Your task to perform on an android device: Play the last video I watched on Youtube Image 0: 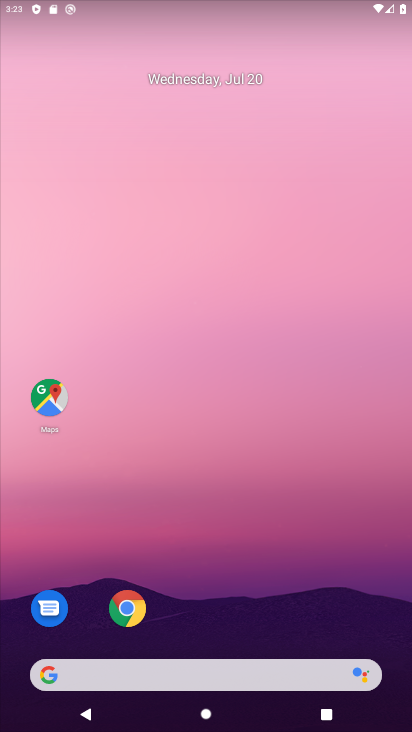
Step 0: drag from (214, 615) to (202, 185)
Your task to perform on an android device: Play the last video I watched on Youtube Image 1: 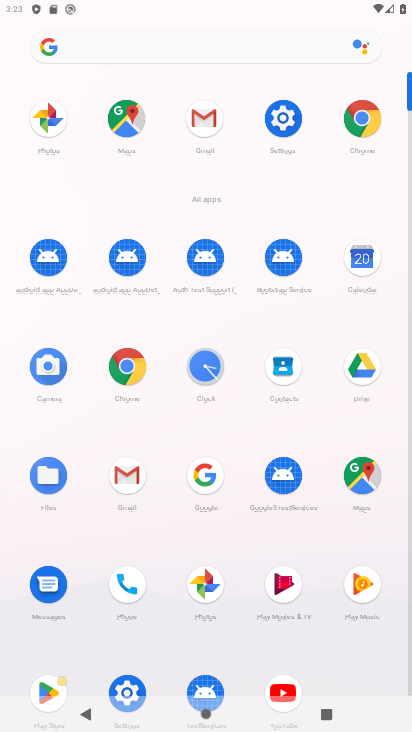
Step 1: click (281, 672)
Your task to perform on an android device: Play the last video I watched on Youtube Image 2: 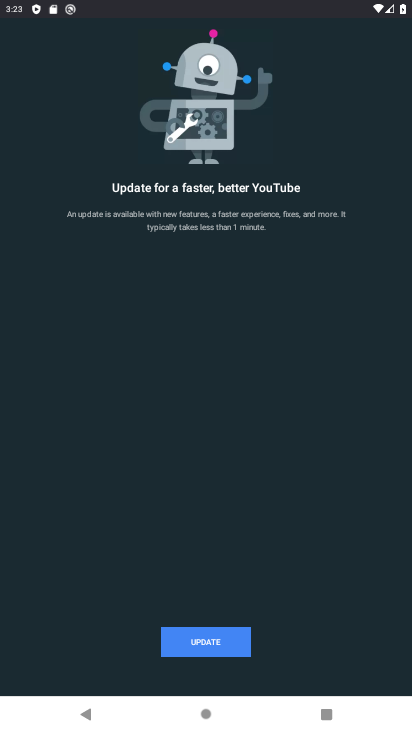
Step 2: click (218, 653)
Your task to perform on an android device: Play the last video I watched on Youtube Image 3: 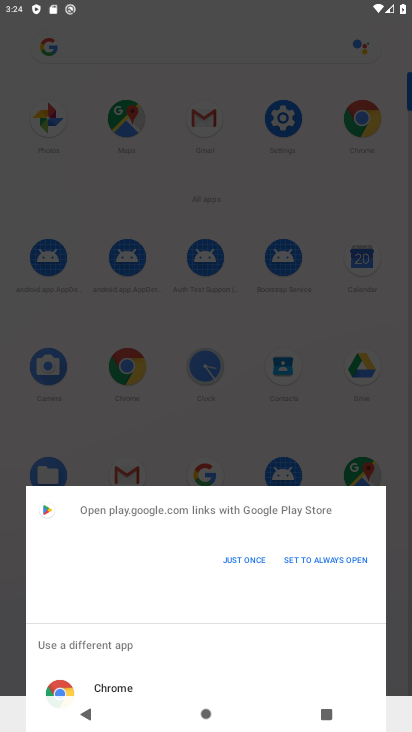
Step 3: click (244, 564)
Your task to perform on an android device: Play the last video I watched on Youtube Image 4: 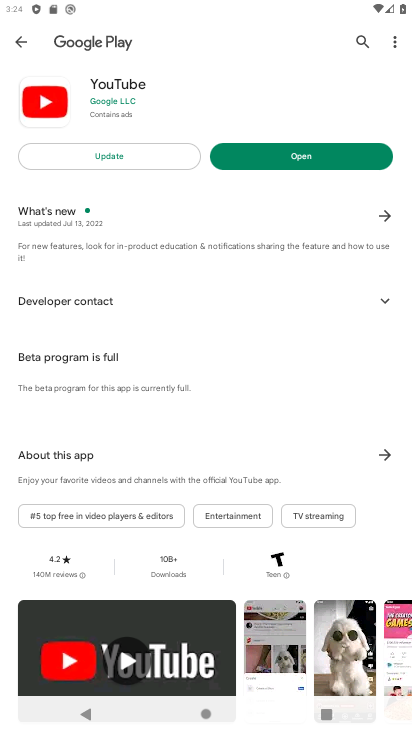
Step 4: click (162, 150)
Your task to perform on an android device: Play the last video I watched on Youtube Image 5: 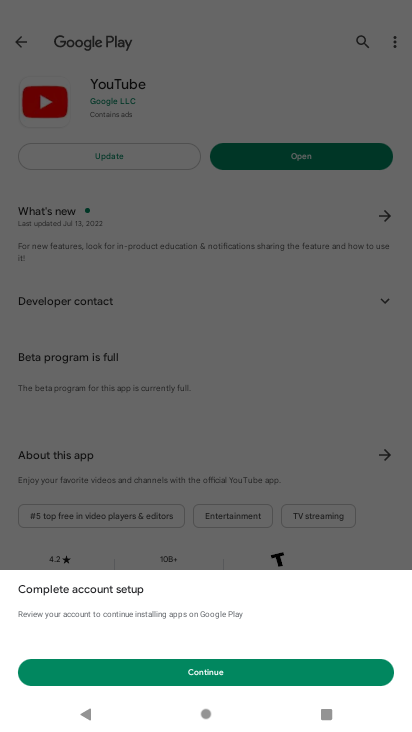
Step 5: click (197, 668)
Your task to perform on an android device: Play the last video I watched on Youtube Image 6: 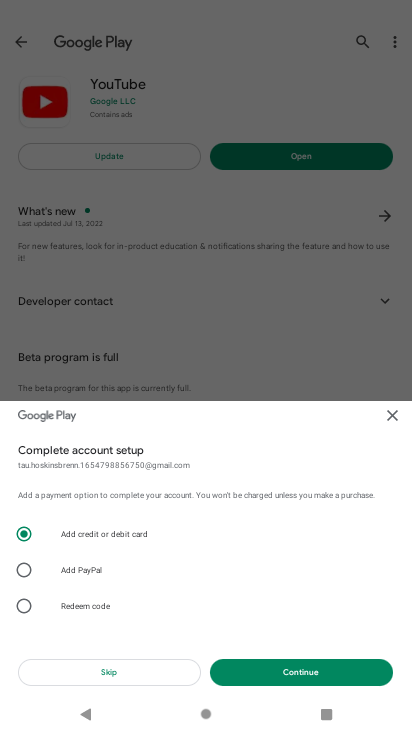
Step 6: click (95, 673)
Your task to perform on an android device: Play the last video I watched on Youtube Image 7: 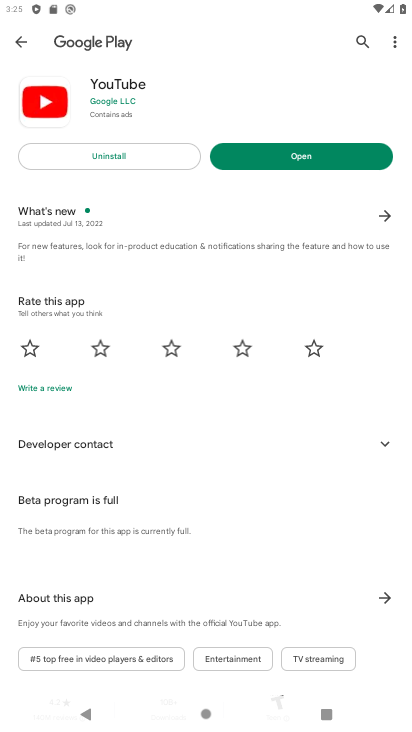
Step 7: click (272, 155)
Your task to perform on an android device: Play the last video I watched on Youtube Image 8: 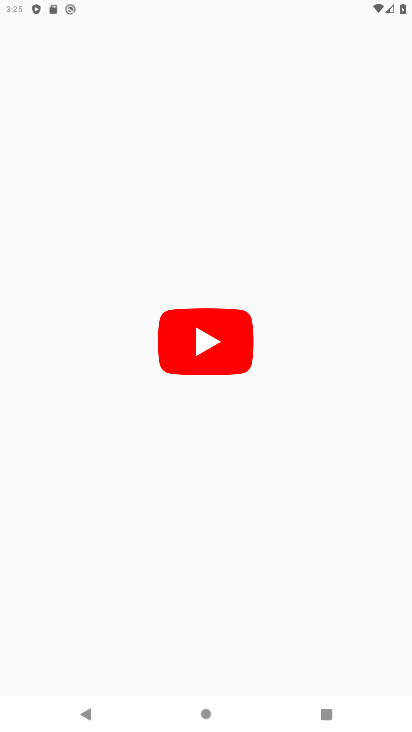
Step 8: task complete